Your task to perform on an android device: allow cookies in the chrome app Image 0: 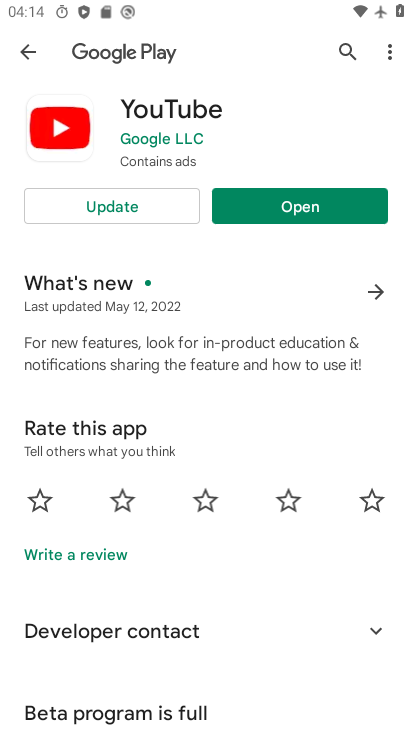
Step 0: press home button
Your task to perform on an android device: allow cookies in the chrome app Image 1: 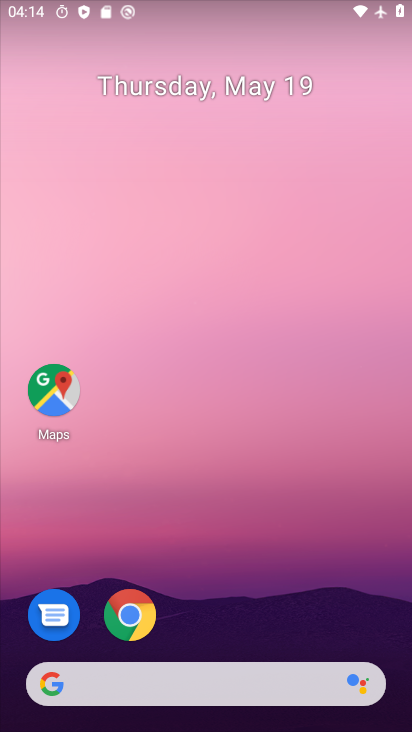
Step 1: click (133, 621)
Your task to perform on an android device: allow cookies in the chrome app Image 2: 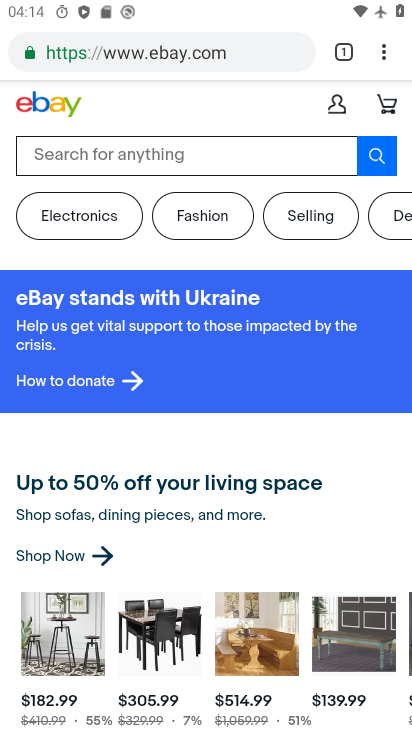
Step 2: click (387, 50)
Your task to perform on an android device: allow cookies in the chrome app Image 3: 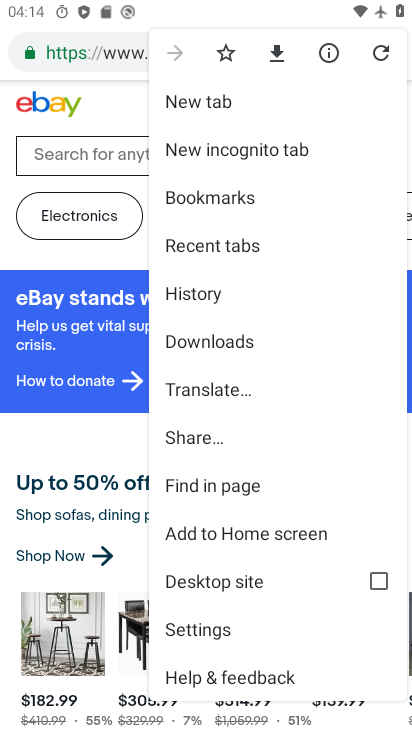
Step 3: click (229, 626)
Your task to perform on an android device: allow cookies in the chrome app Image 4: 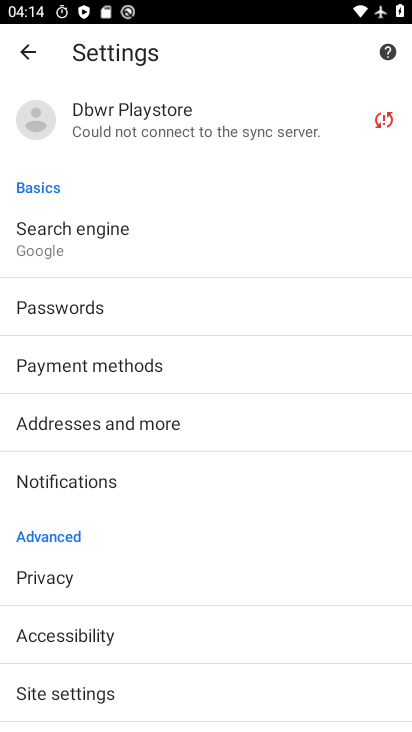
Step 4: drag from (208, 571) to (189, 322)
Your task to perform on an android device: allow cookies in the chrome app Image 5: 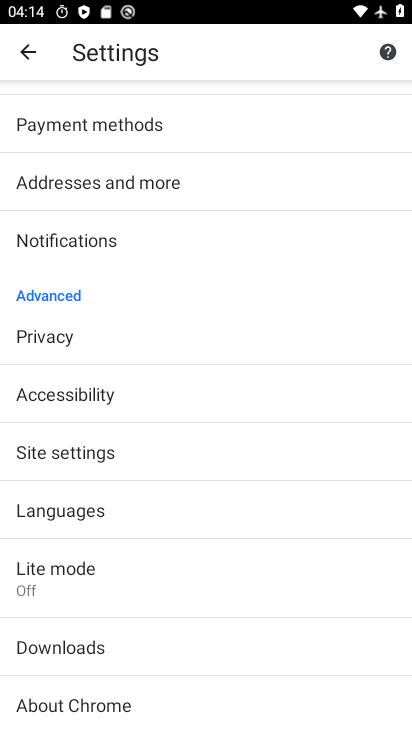
Step 5: click (108, 449)
Your task to perform on an android device: allow cookies in the chrome app Image 6: 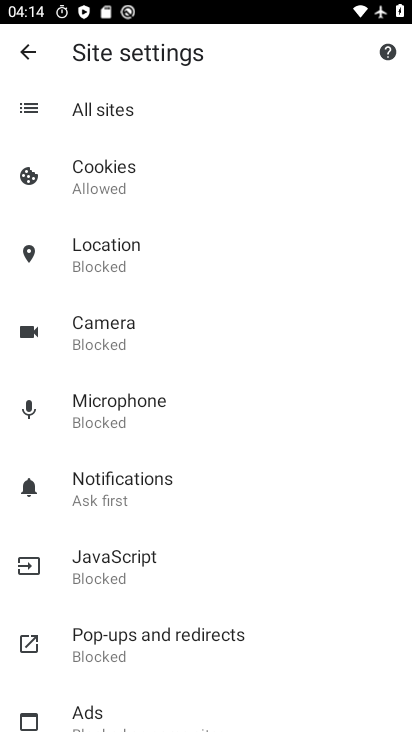
Step 6: click (96, 189)
Your task to perform on an android device: allow cookies in the chrome app Image 7: 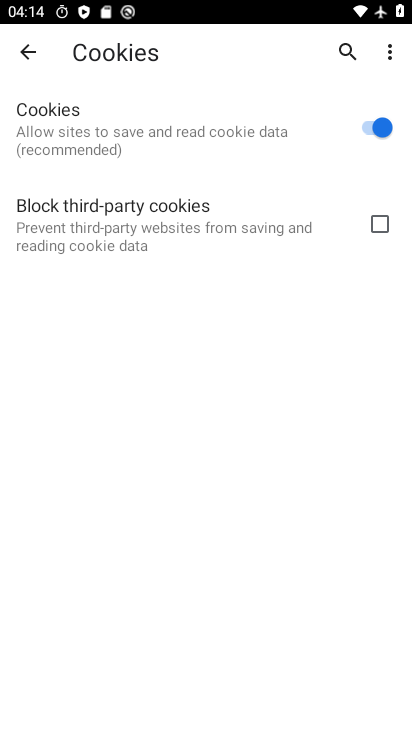
Step 7: task complete